Your task to perform on an android device: check data usage Image 0: 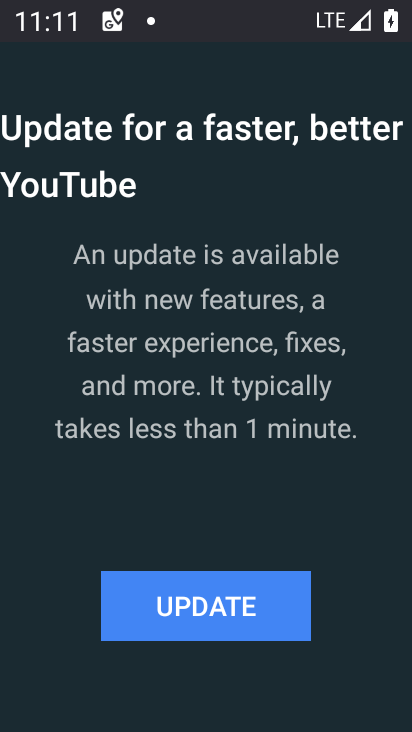
Step 0: press home button
Your task to perform on an android device: check data usage Image 1: 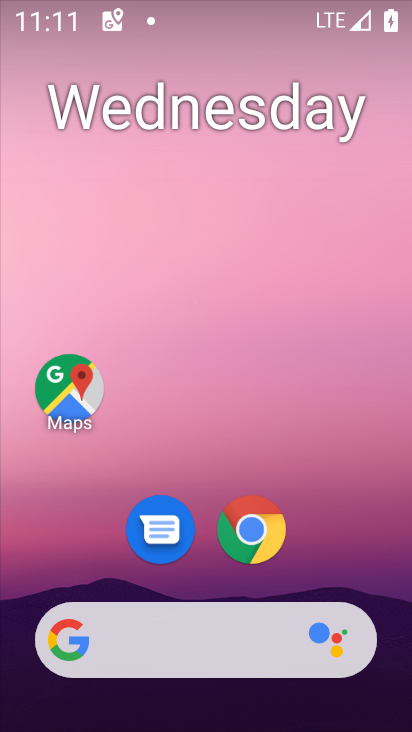
Step 1: drag from (397, 616) to (338, 315)
Your task to perform on an android device: check data usage Image 2: 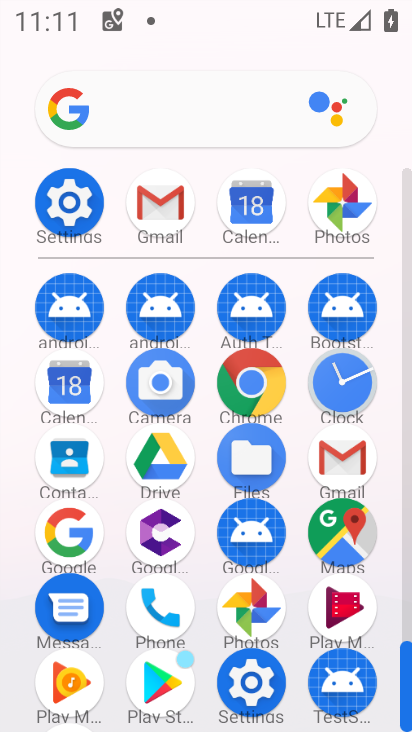
Step 2: click (250, 680)
Your task to perform on an android device: check data usage Image 3: 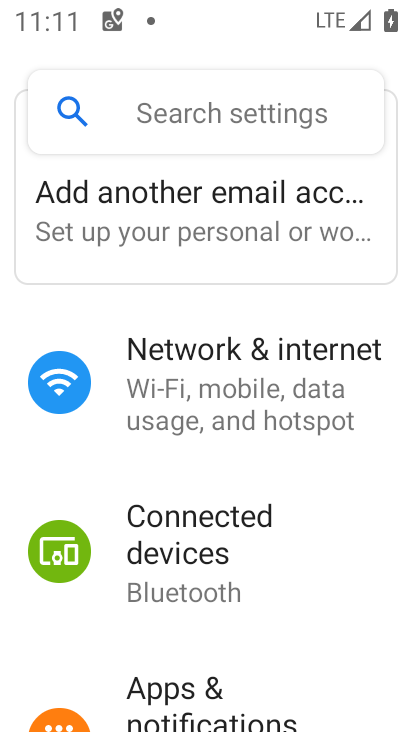
Step 3: click (196, 367)
Your task to perform on an android device: check data usage Image 4: 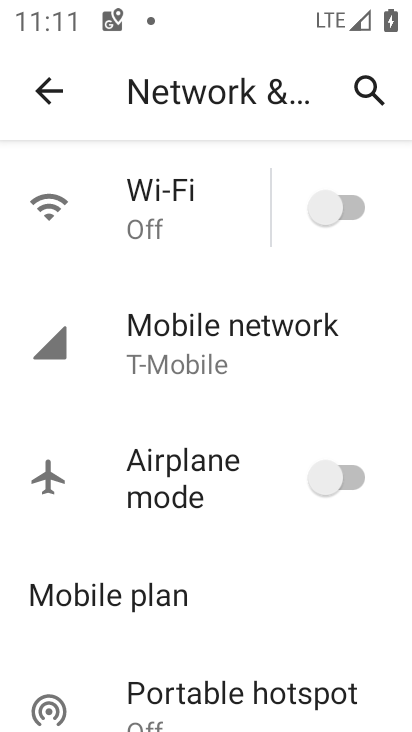
Step 4: click (179, 335)
Your task to perform on an android device: check data usage Image 5: 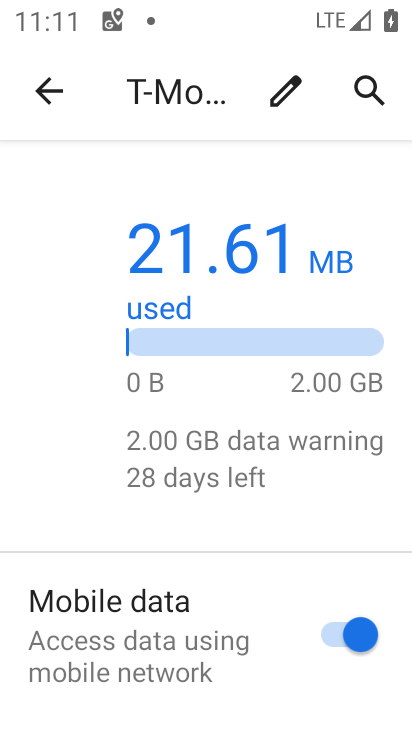
Step 5: task complete